Your task to perform on an android device: Do I have any events this weekend? Image 0: 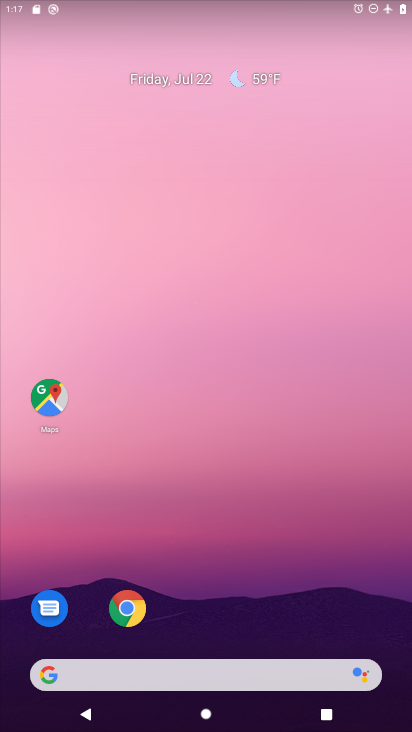
Step 0: drag from (390, 631) to (77, 47)
Your task to perform on an android device: Do I have any events this weekend? Image 1: 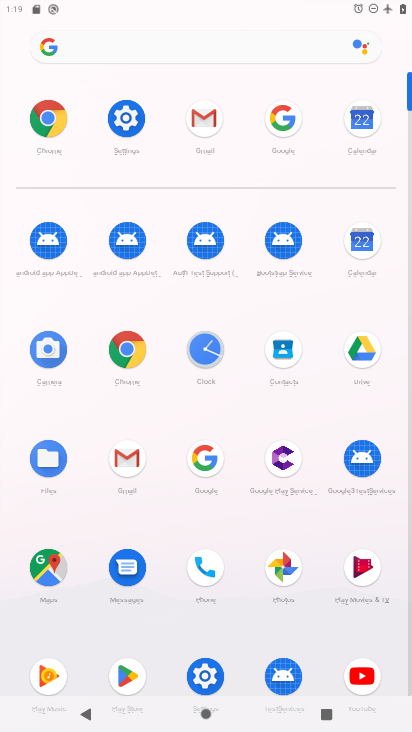
Step 1: click (367, 261)
Your task to perform on an android device: Do I have any events this weekend? Image 2: 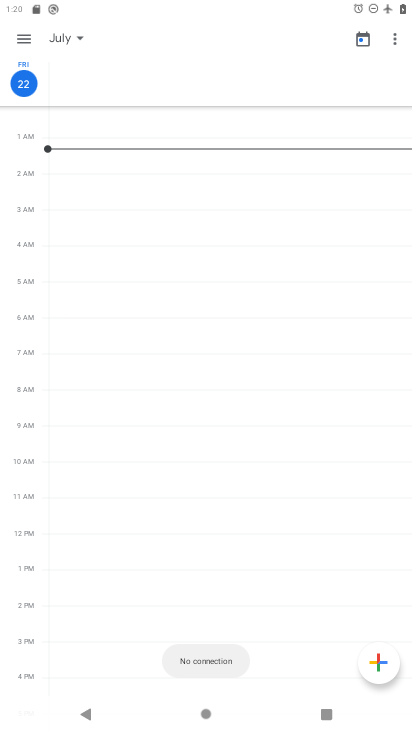
Step 2: task complete